Your task to perform on an android device: Go to privacy settings Image 0: 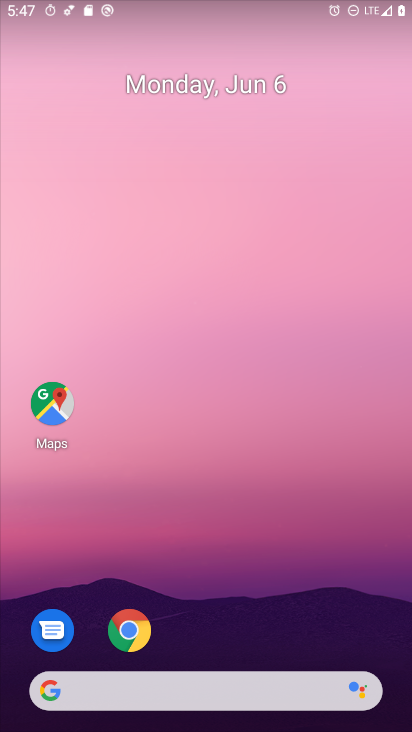
Step 0: drag from (303, 657) to (217, 42)
Your task to perform on an android device: Go to privacy settings Image 1: 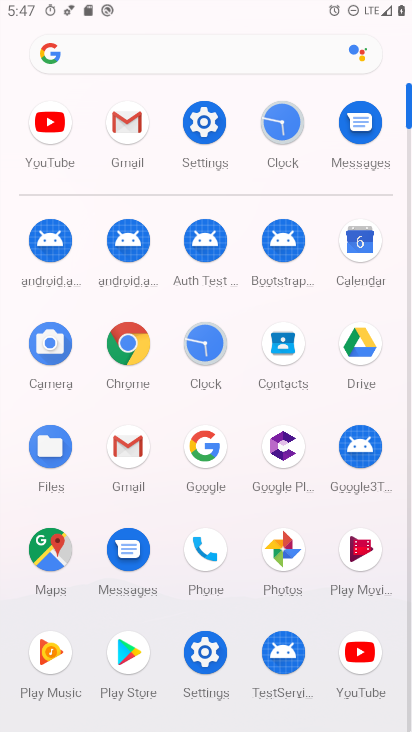
Step 1: click (203, 121)
Your task to perform on an android device: Go to privacy settings Image 2: 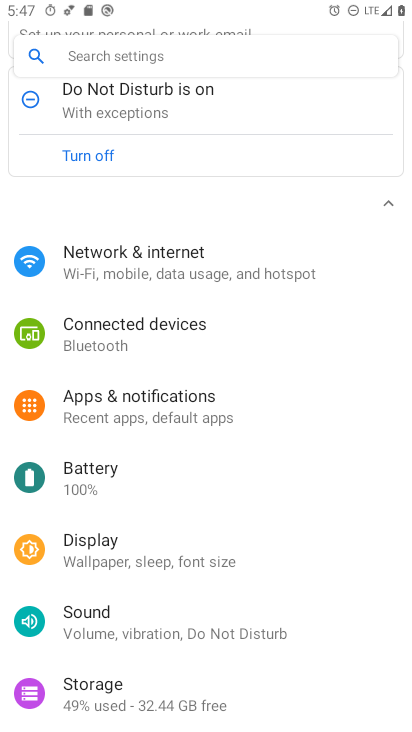
Step 2: drag from (235, 611) to (252, 175)
Your task to perform on an android device: Go to privacy settings Image 3: 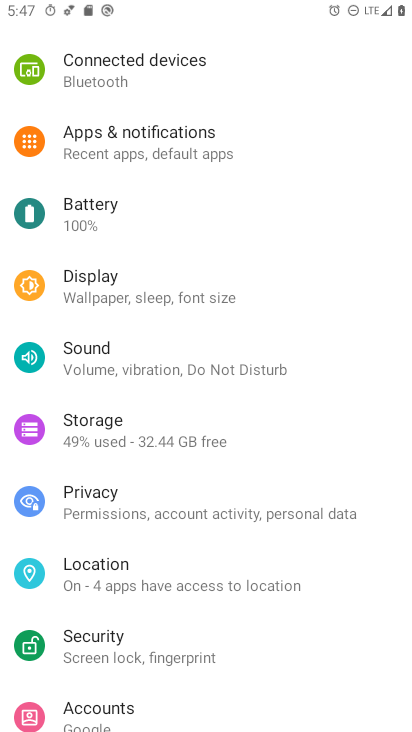
Step 3: click (177, 503)
Your task to perform on an android device: Go to privacy settings Image 4: 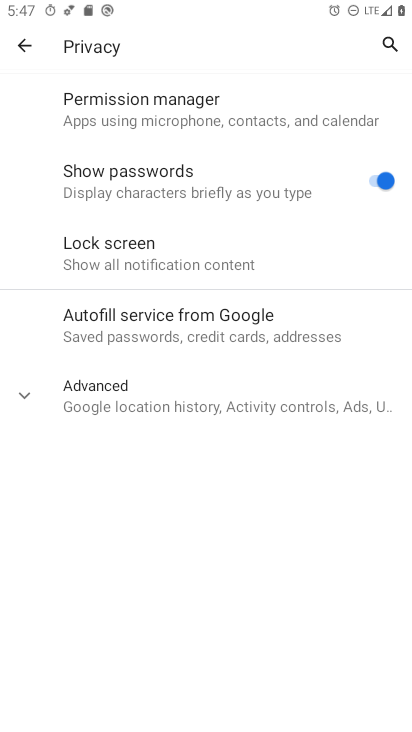
Step 4: task complete